Your task to perform on an android device: turn on translation in the chrome app Image 0: 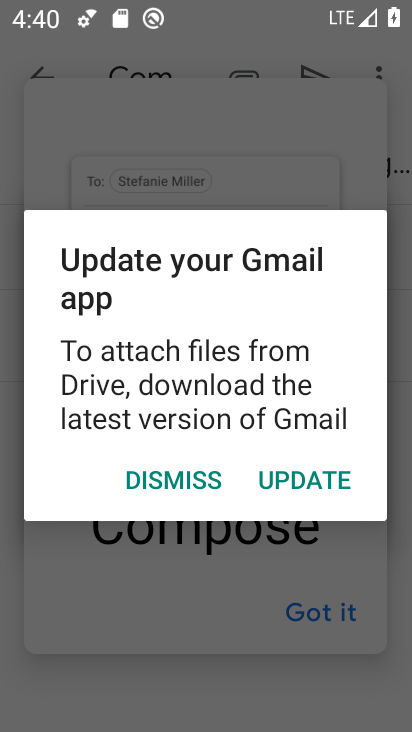
Step 0: press home button
Your task to perform on an android device: turn on translation in the chrome app Image 1: 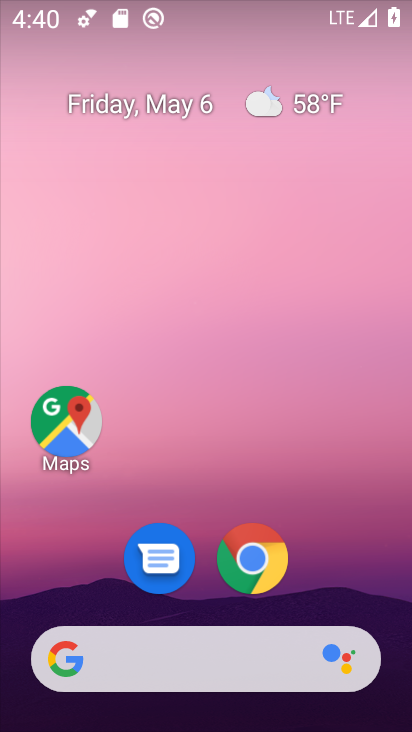
Step 1: click (249, 575)
Your task to perform on an android device: turn on translation in the chrome app Image 2: 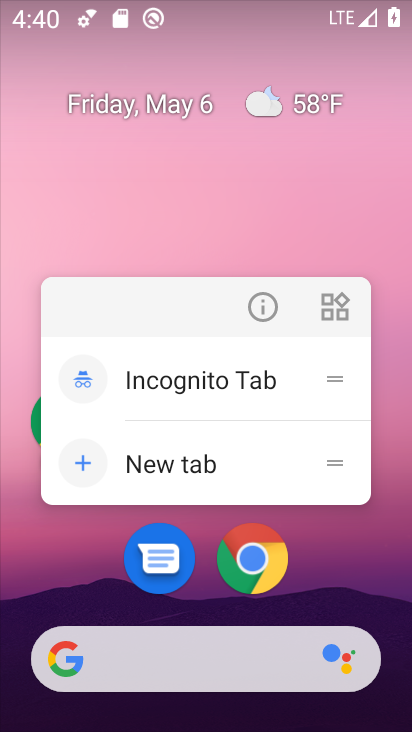
Step 2: click (260, 558)
Your task to perform on an android device: turn on translation in the chrome app Image 3: 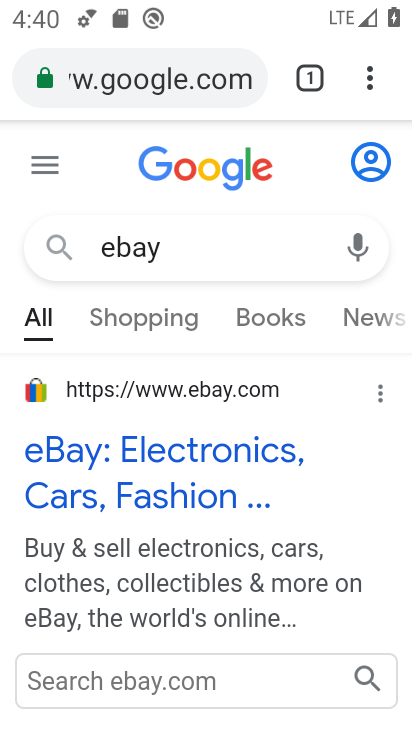
Step 3: drag from (374, 77) to (163, 629)
Your task to perform on an android device: turn on translation in the chrome app Image 4: 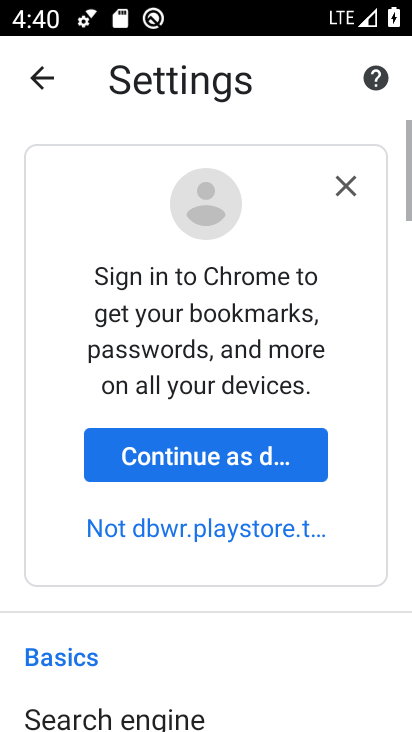
Step 4: drag from (195, 660) to (142, 75)
Your task to perform on an android device: turn on translation in the chrome app Image 5: 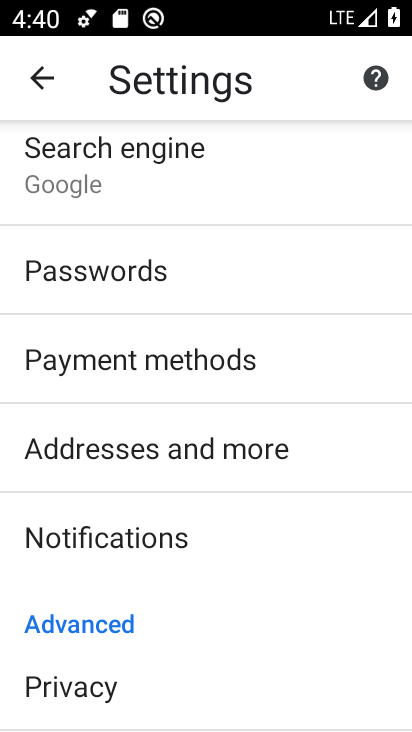
Step 5: drag from (181, 689) to (142, 210)
Your task to perform on an android device: turn on translation in the chrome app Image 6: 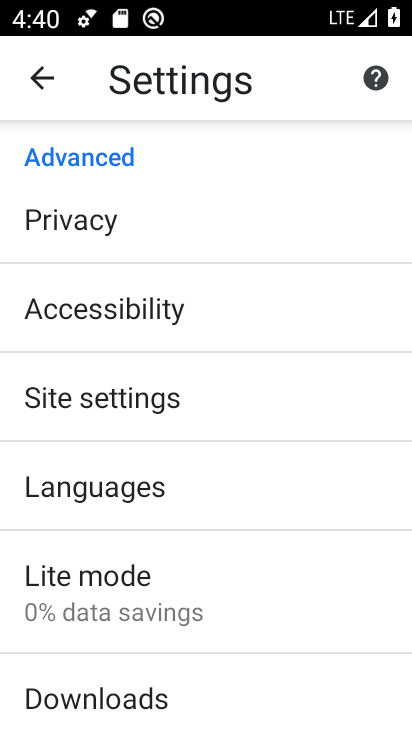
Step 6: click (151, 498)
Your task to perform on an android device: turn on translation in the chrome app Image 7: 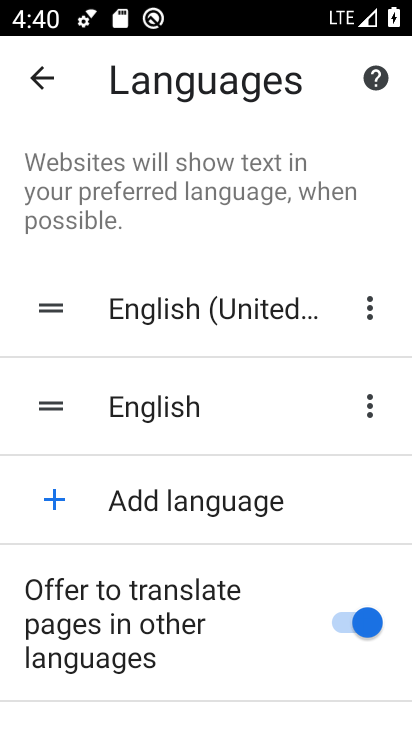
Step 7: task complete